Your task to perform on an android device: star an email in the gmail app Image 0: 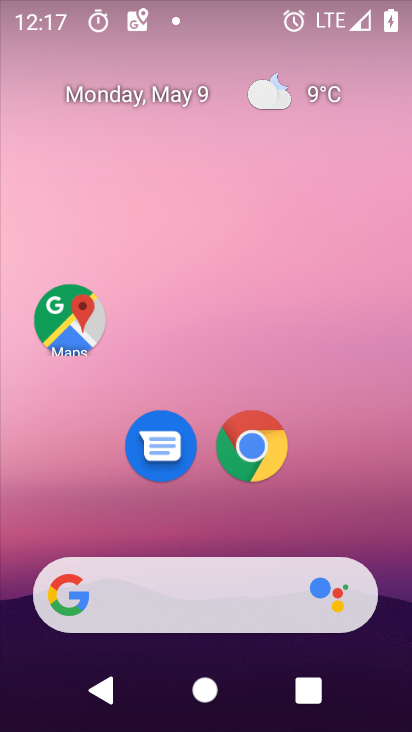
Step 0: drag from (341, 524) to (258, 35)
Your task to perform on an android device: star an email in the gmail app Image 1: 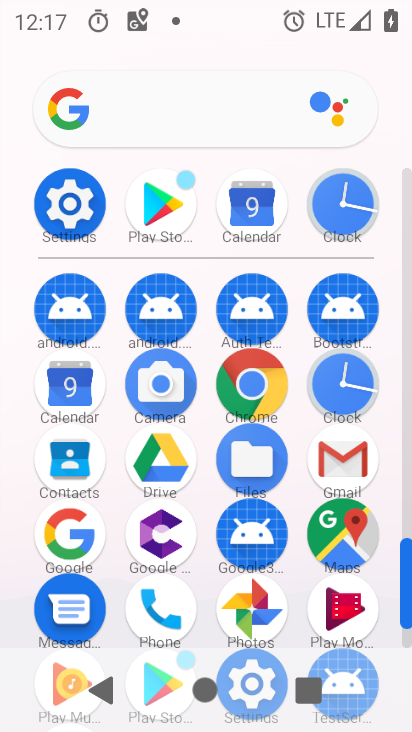
Step 1: click (333, 463)
Your task to perform on an android device: star an email in the gmail app Image 2: 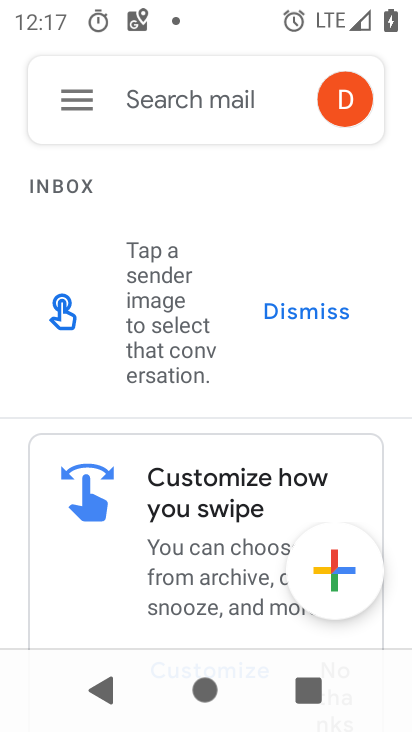
Step 2: drag from (157, 504) to (154, 276)
Your task to perform on an android device: star an email in the gmail app Image 3: 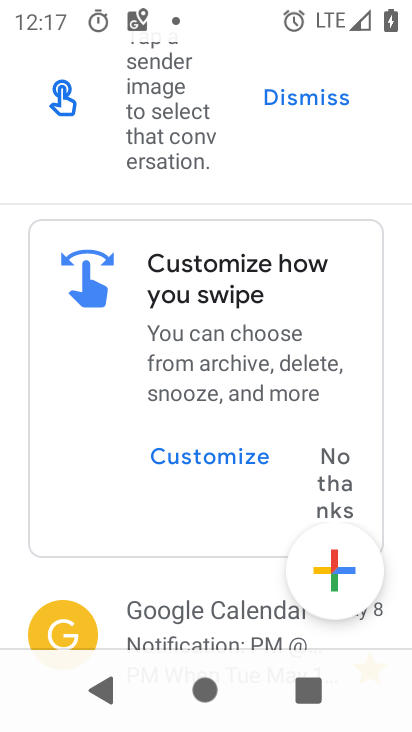
Step 3: drag from (164, 540) to (148, 214)
Your task to perform on an android device: star an email in the gmail app Image 4: 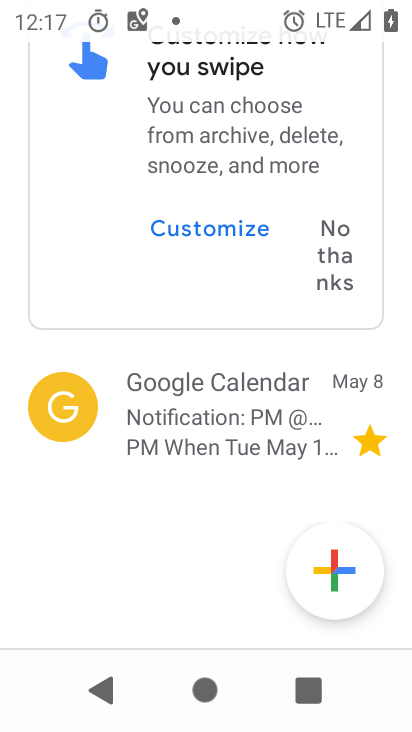
Step 4: drag from (146, 284) to (159, 531)
Your task to perform on an android device: star an email in the gmail app Image 5: 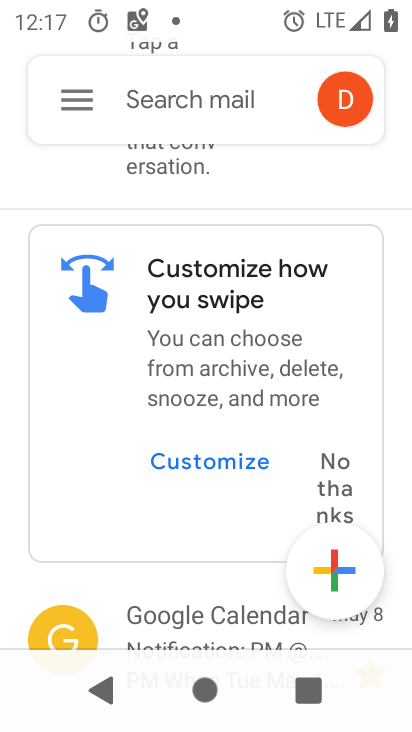
Step 5: click (77, 118)
Your task to perform on an android device: star an email in the gmail app Image 6: 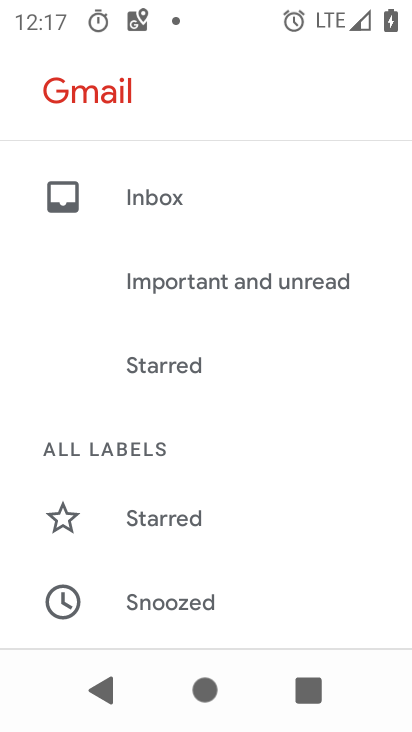
Step 6: drag from (197, 476) to (183, 145)
Your task to perform on an android device: star an email in the gmail app Image 7: 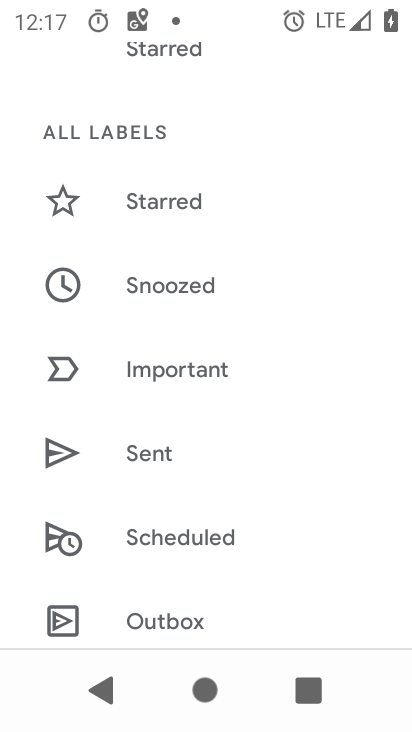
Step 7: drag from (177, 551) to (164, 178)
Your task to perform on an android device: star an email in the gmail app Image 8: 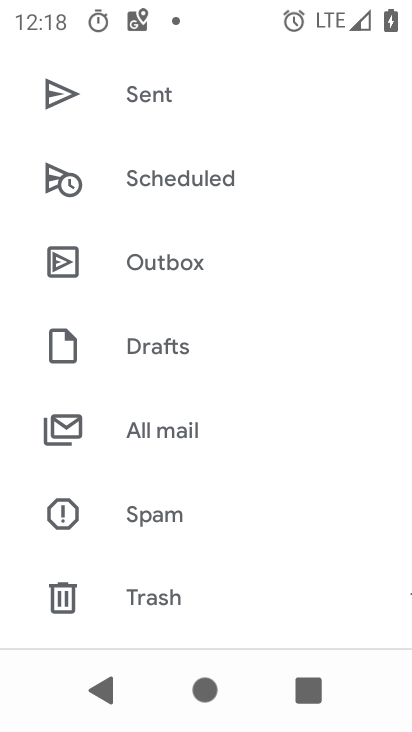
Step 8: click (185, 421)
Your task to perform on an android device: star an email in the gmail app Image 9: 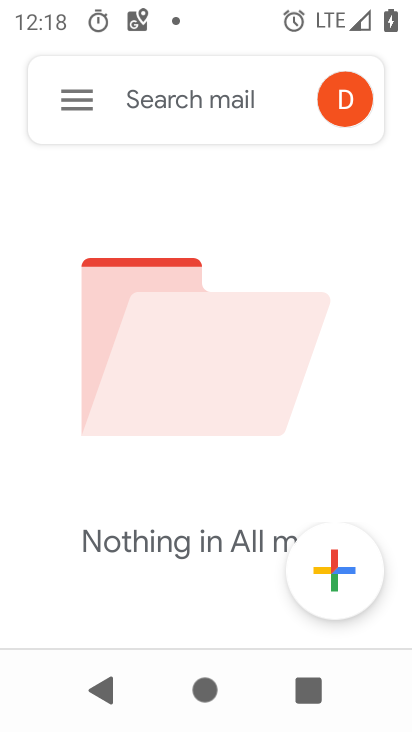
Step 9: drag from (186, 535) to (193, 250)
Your task to perform on an android device: star an email in the gmail app Image 10: 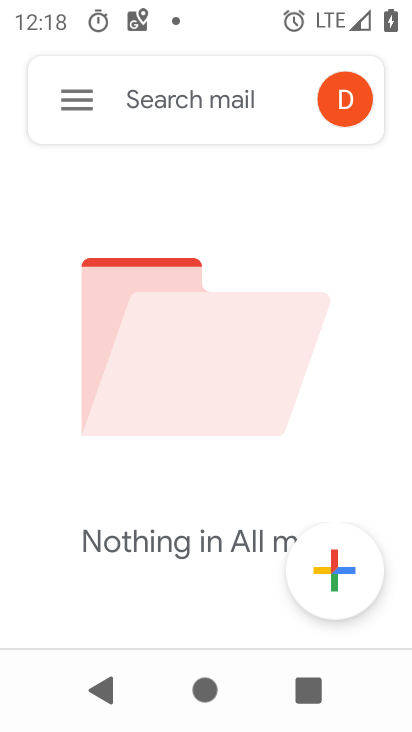
Step 10: click (72, 105)
Your task to perform on an android device: star an email in the gmail app Image 11: 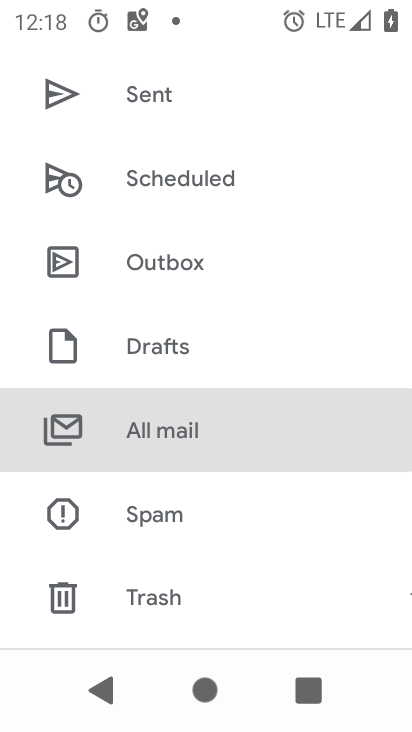
Step 11: drag from (145, 297) to (174, 663)
Your task to perform on an android device: star an email in the gmail app Image 12: 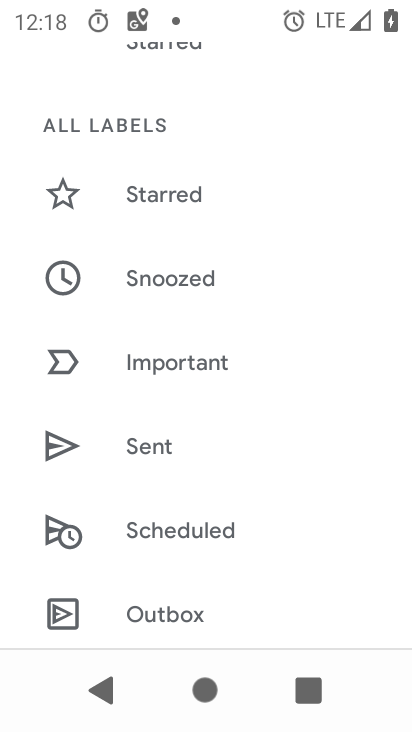
Step 12: drag from (180, 221) to (166, 615)
Your task to perform on an android device: star an email in the gmail app Image 13: 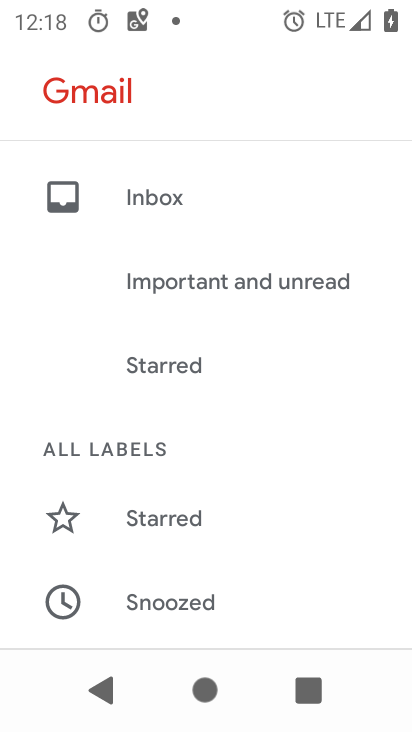
Step 13: click (164, 204)
Your task to perform on an android device: star an email in the gmail app Image 14: 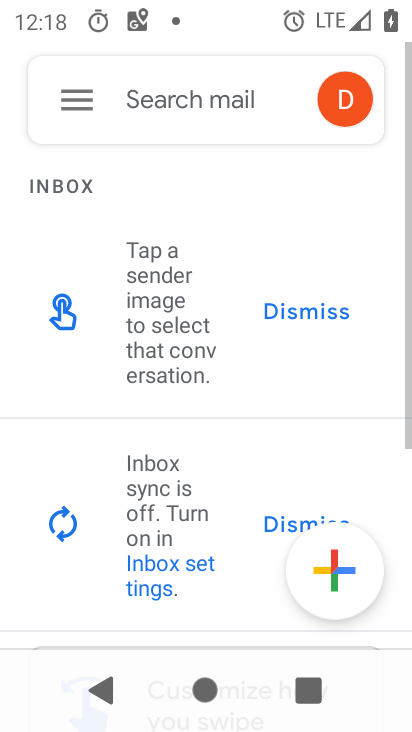
Step 14: drag from (164, 511) to (161, 171)
Your task to perform on an android device: star an email in the gmail app Image 15: 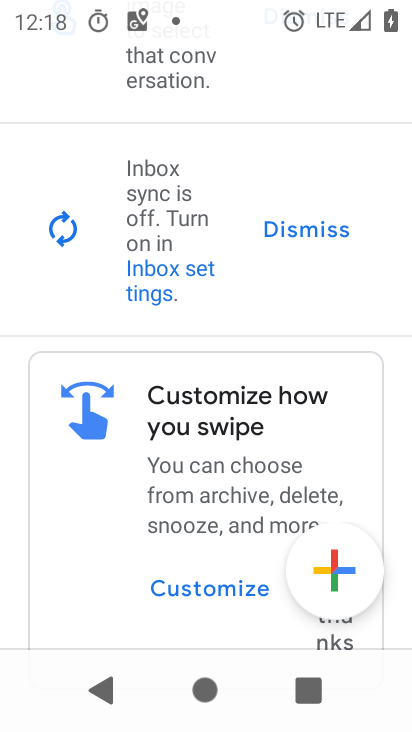
Step 15: drag from (163, 506) to (174, 156)
Your task to perform on an android device: star an email in the gmail app Image 16: 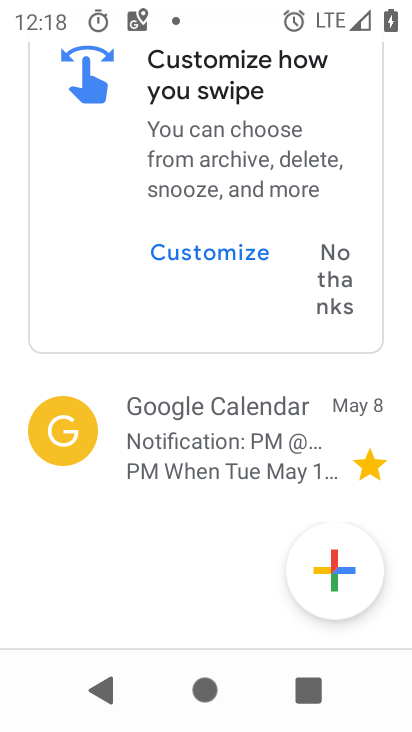
Step 16: click (227, 475)
Your task to perform on an android device: star an email in the gmail app Image 17: 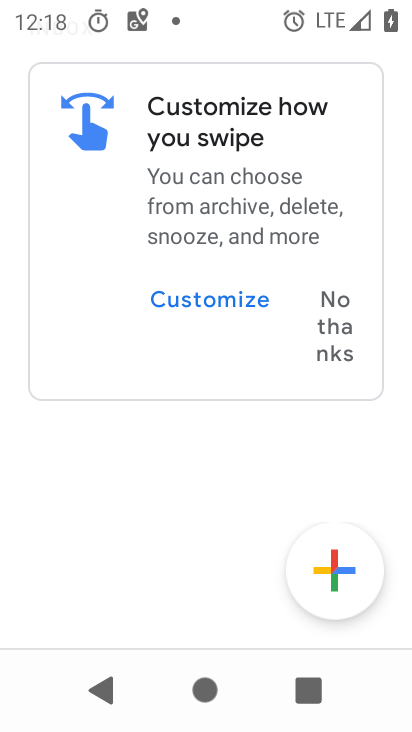
Step 17: task complete